Your task to perform on an android device: make emails show in primary in the gmail app Image 0: 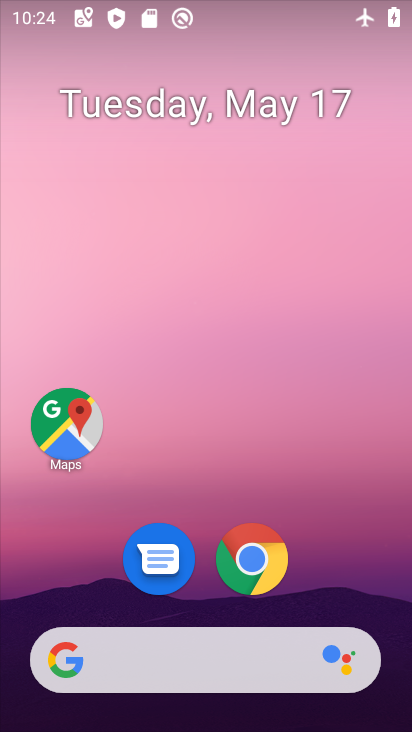
Step 0: drag from (185, 510) to (185, 288)
Your task to perform on an android device: make emails show in primary in the gmail app Image 1: 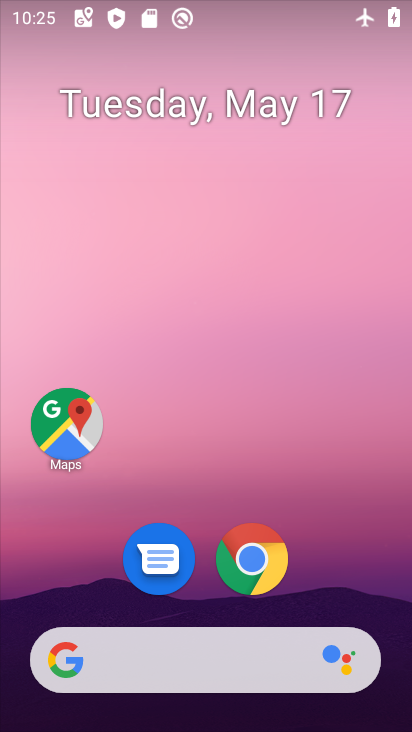
Step 1: drag from (224, 719) to (150, 105)
Your task to perform on an android device: make emails show in primary in the gmail app Image 2: 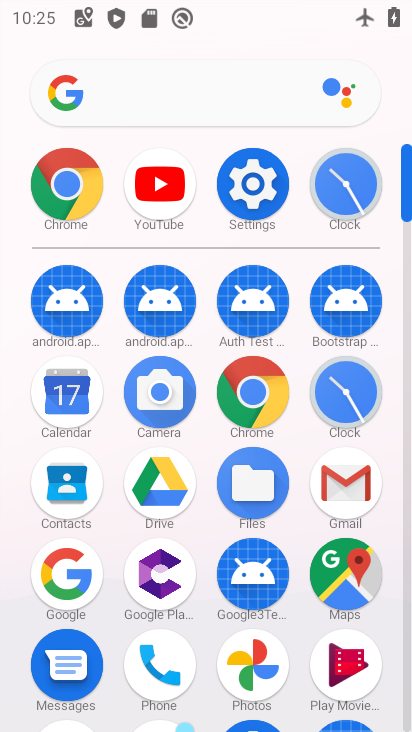
Step 2: drag from (215, 717) to (170, 165)
Your task to perform on an android device: make emails show in primary in the gmail app Image 3: 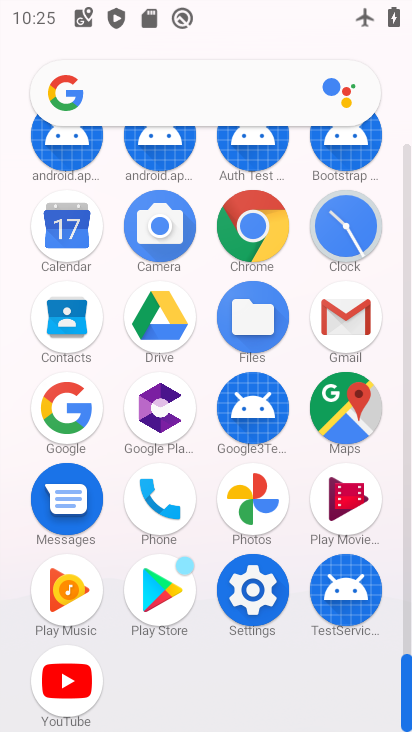
Step 3: click (354, 325)
Your task to perform on an android device: make emails show in primary in the gmail app Image 4: 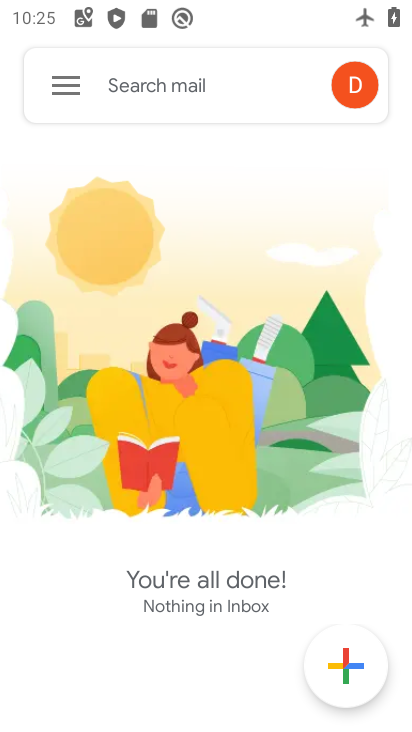
Step 4: click (74, 81)
Your task to perform on an android device: make emails show in primary in the gmail app Image 5: 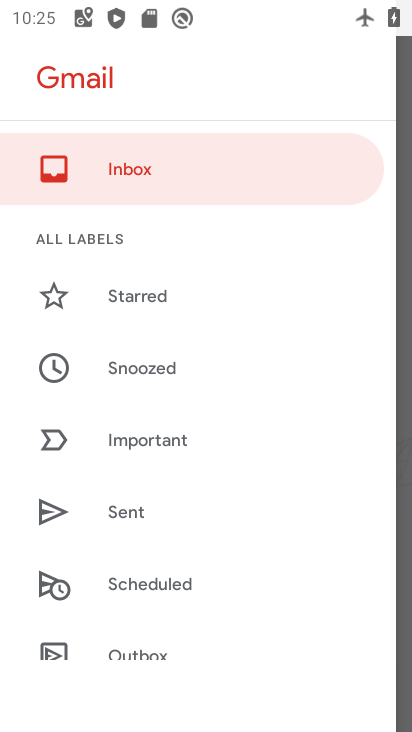
Step 5: drag from (203, 607) to (181, 1)
Your task to perform on an android device: make emails show in primary in the gmail app Image 6: 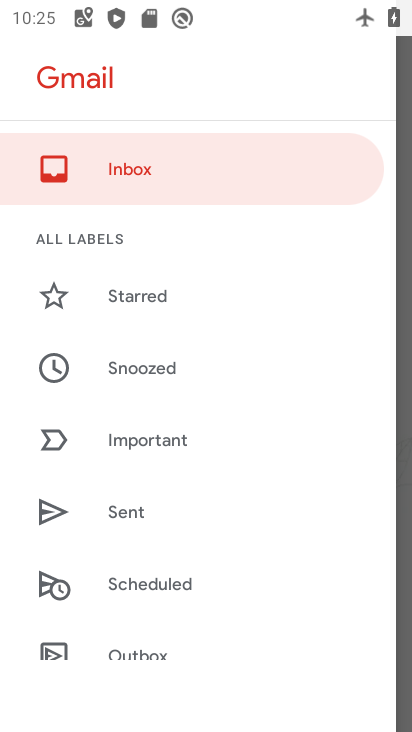
Step 6: drag from (192, 628) to (131, 21)
Your task to perform on an android device: make emails show in primary in the gmail app Image 7: 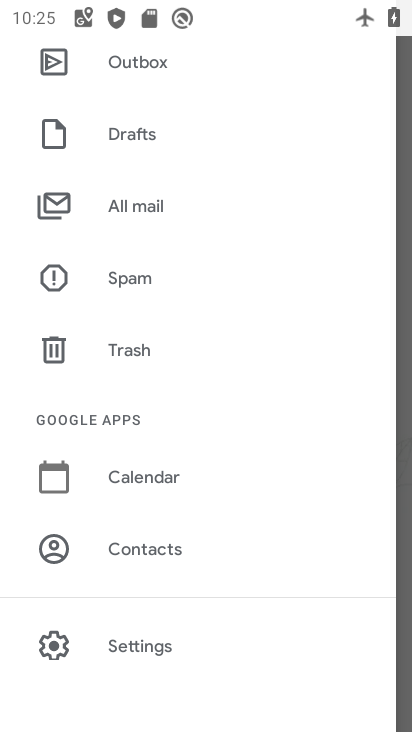
Step 7: click (134, 644)
Your task to perform on an android device: make emails show in primary in the gmail app Image 8: 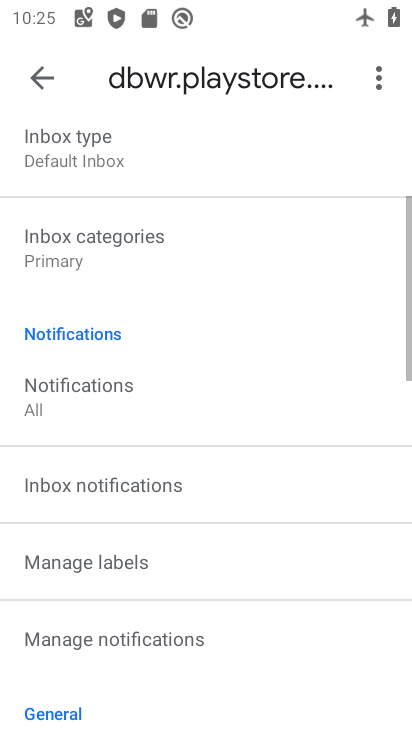
Step 8: click (116, 248)
Your task to perform on an android device: make emails show in primary in the gmail app Image 9: 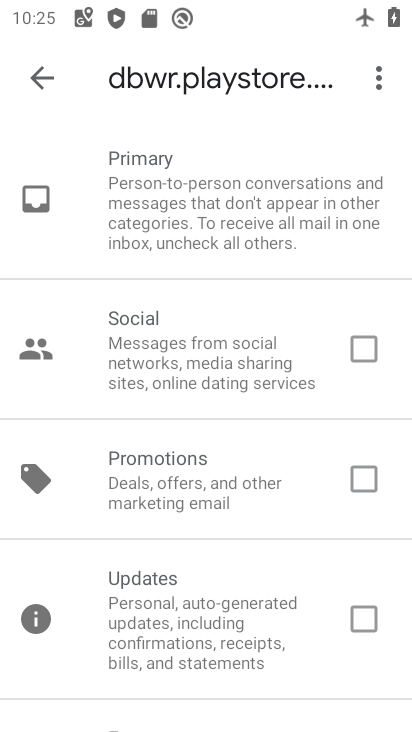
Step 9: task complete